Your task to perform on an android device: make emails show in primary in the gmail app Image 0: 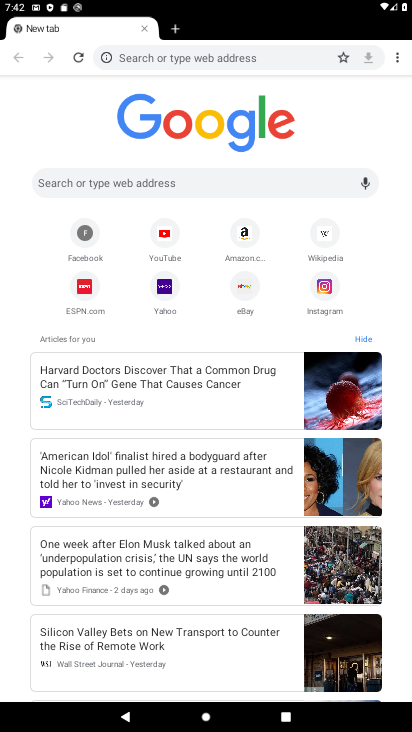
Step 0: press home button
Your task to perform on an android device: make emails show in primary in the gmail app Image 1: 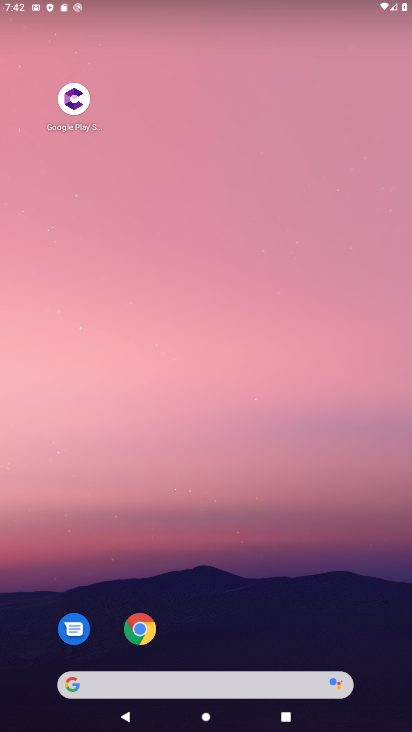
Step 1: drag from (248, 637) to (244, 171)
Your task to perform on an android device: make emails show in primary in the gmail app Image 2: 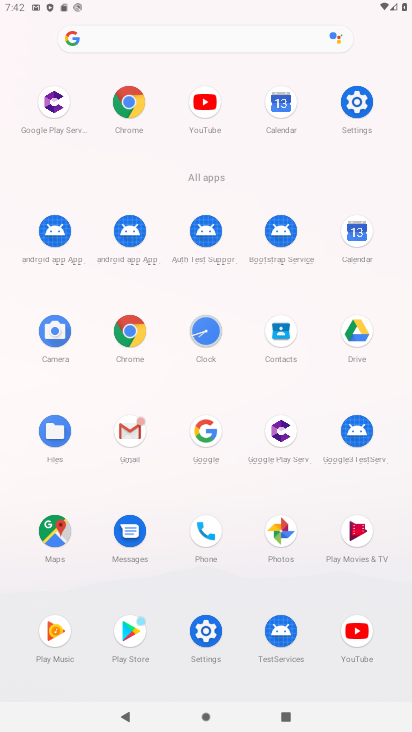
Step 2: click (130, 429)
Your task to perform on an android device: make emails show in primary in the gmail app Image 3: 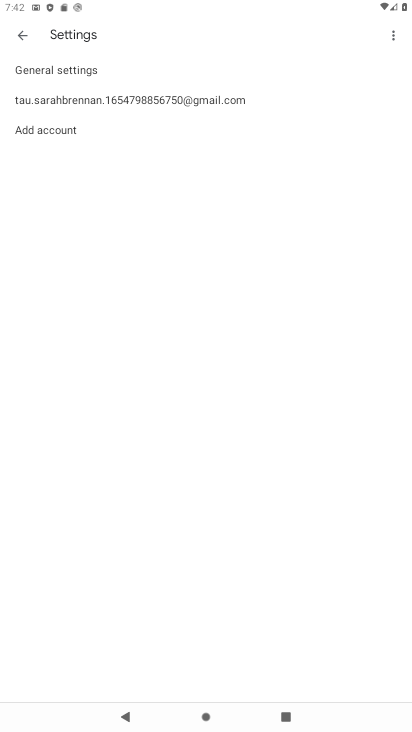
Step 3: click (63, 99)
Your task to perform on an android device: make emails show in primary in the gmail app Image 4: 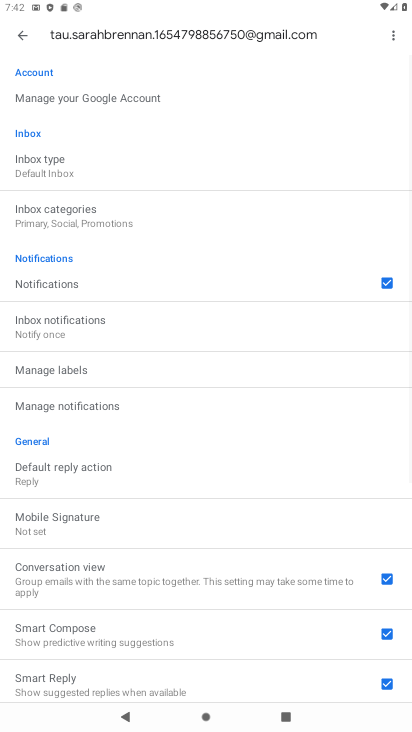
Step 4: click (85, 216)
Your task to perform on an android device: make emails show in primary in the gmail app Image 5: 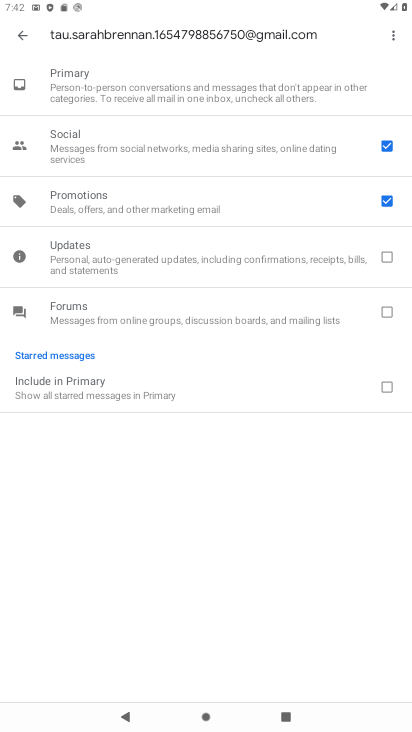
Step 5: click (388, 145)
Your task to perform on an android device: make emails show in primary in the gmail app Image 6: 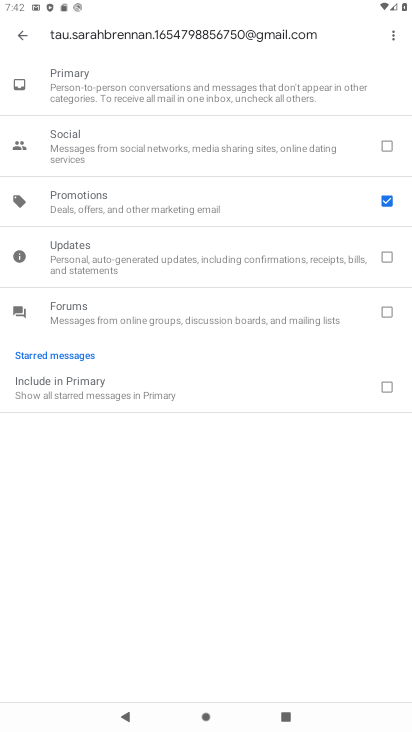
Step 6: click (390, 201)
Your task to perform on an android device: make emails show in primary in the gmail app Image 7: 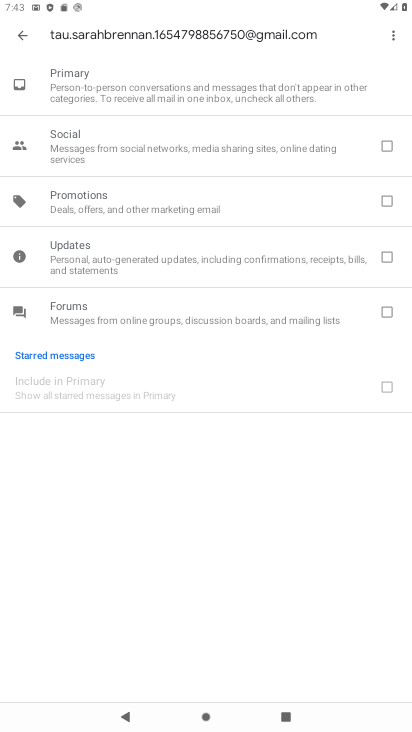
Step 7: task complete